Your task to perform on an android device: Open Google Maps and go to "Timeline" Image 0: 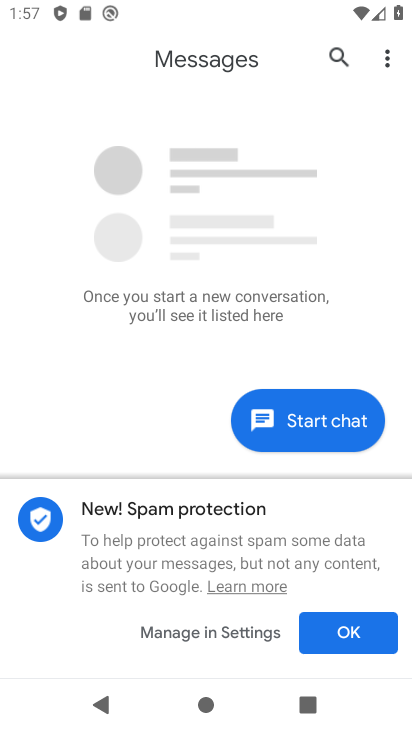
Step 0: press home button
Your task to perform on an android device: Open Google Maps and go to "Timeline" Image 1: 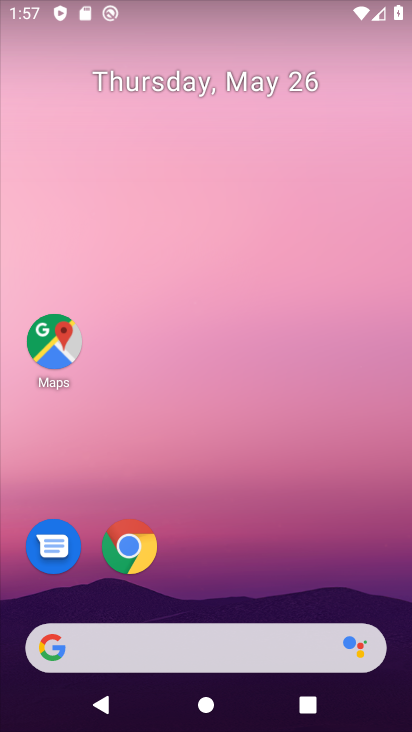
Step 1: click (63, 342)
Your task to perform on an android device: Open Google Maps and go to "Timeline" Image 2: 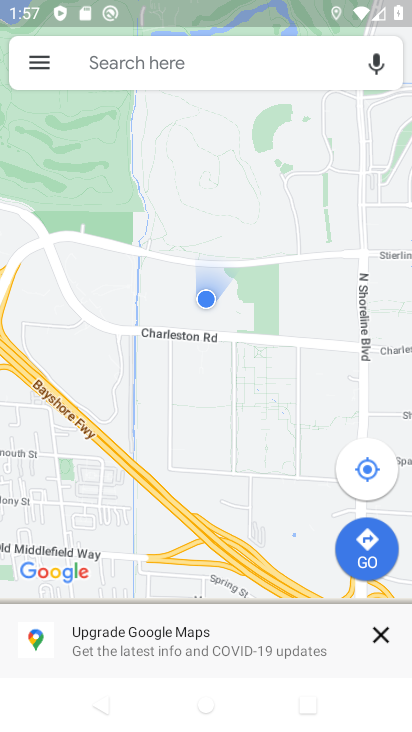
Step 2: click (37, 58)
Your task to perform on an android device: Open Google Maps and go to "Timeline" Image 3: 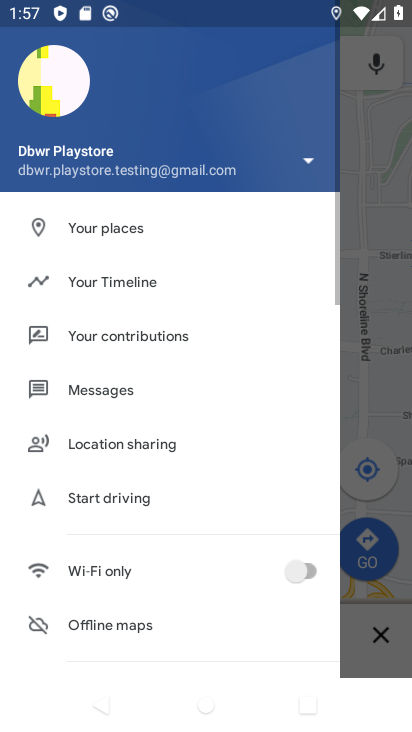
Step 3: click (102, 286)
Your task to perform on an android device: Open Google Maps and go to "Timeline" Image 4: 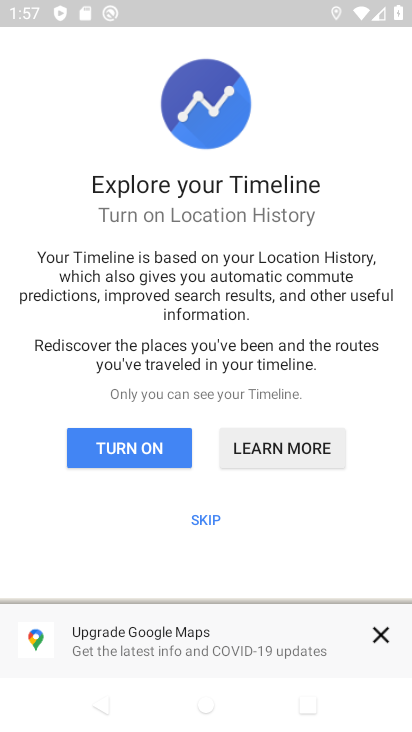
Step 4: click (200, 519)
Your task to perform on an android device: Open Google Maps and go to "Timeline" Image 5: 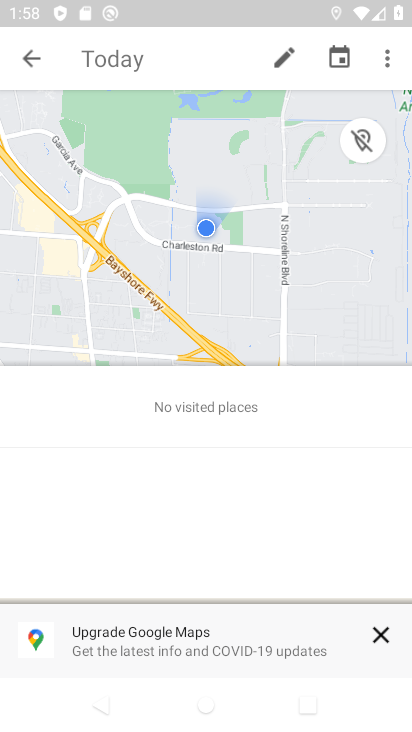
Step 5: task complete